Your task to perform on an android device: View the shopping cart on ebay.com. Search for razer blade on ebay.com, select the first entry, add it to the cart, then select checkout. Image 0: 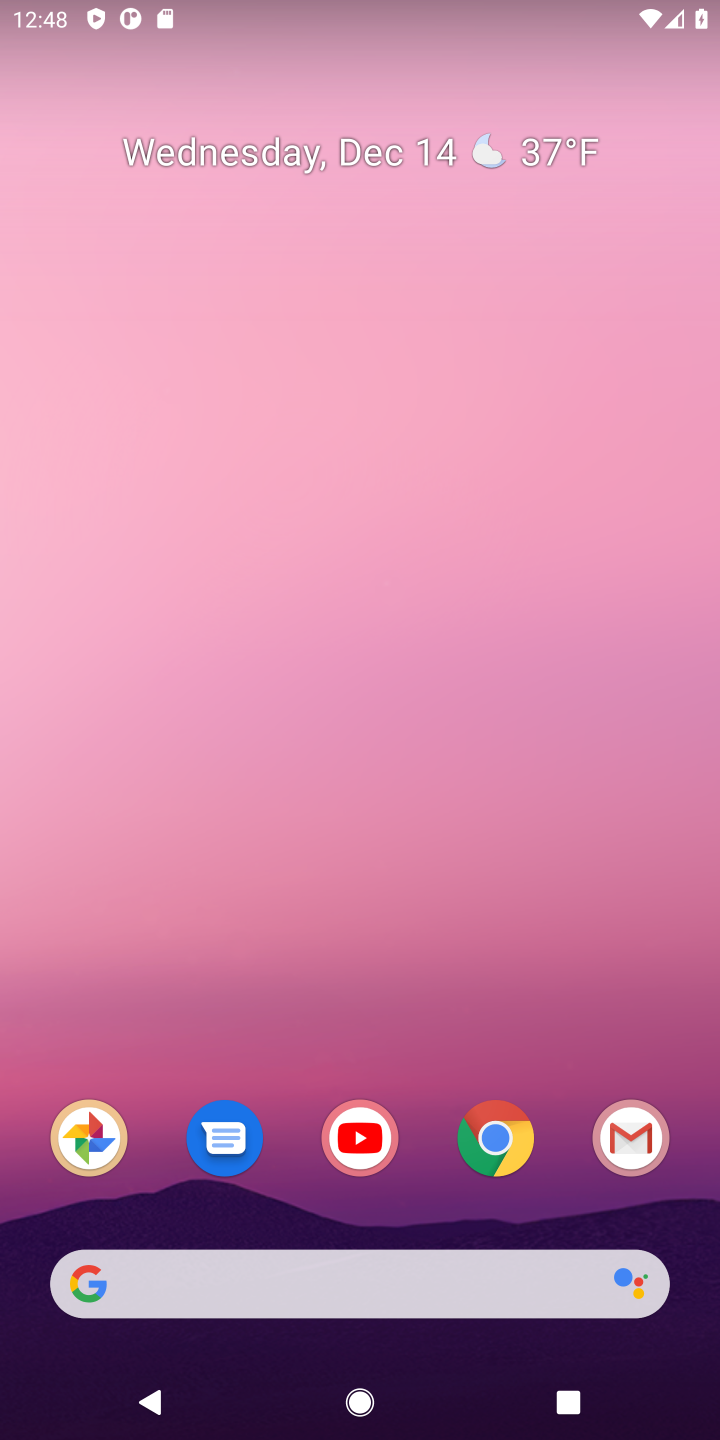
Step 0: click (478, 1117)
Your task to perform on an android device: View the shopping cart on ebay.com. Search for razer blade on ebay.com, select the first entry, add it to the cart, then select checkout. Image 1: 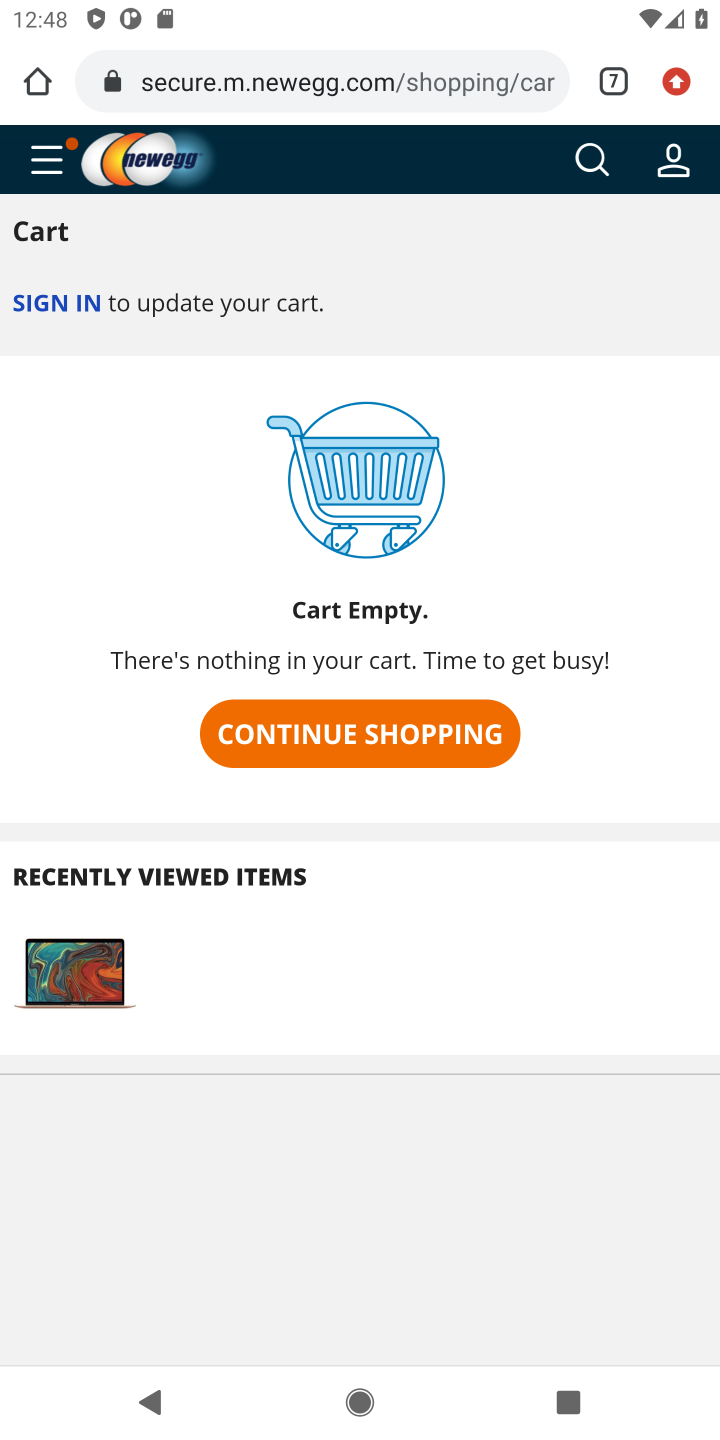
Step 1: click (618, 81)
Your task to perform on an android device: View the shopping cart on ebay.com. Search for razer blade on ebay.com, select the first entry, add it to the cart, then select checkout. Image 2: 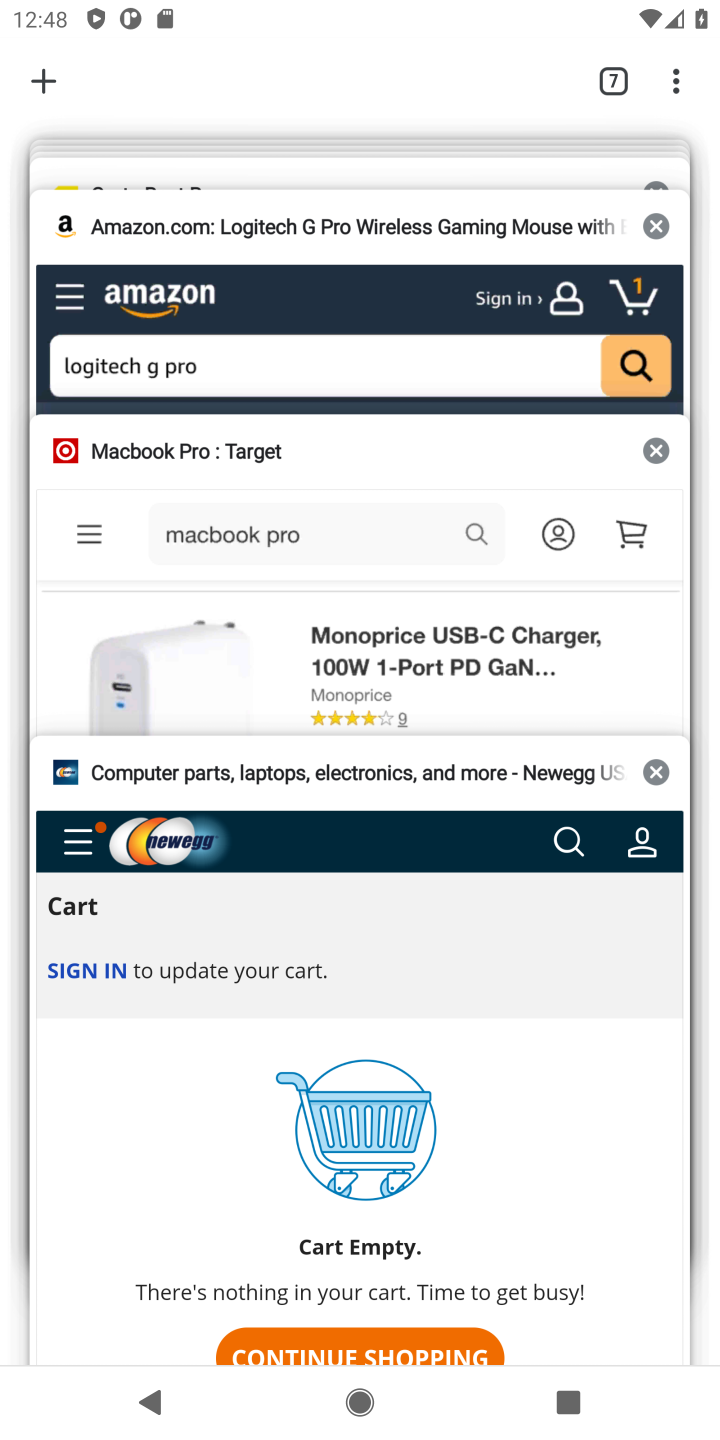
Step 2: drag from (302, 210) to (144, 738)
Your task to perform on an android device: View the shopping cart on ebay.com. Search for razer blade on ebay.com, select the first entry, add it to the cart, then select checkout. Image 3: 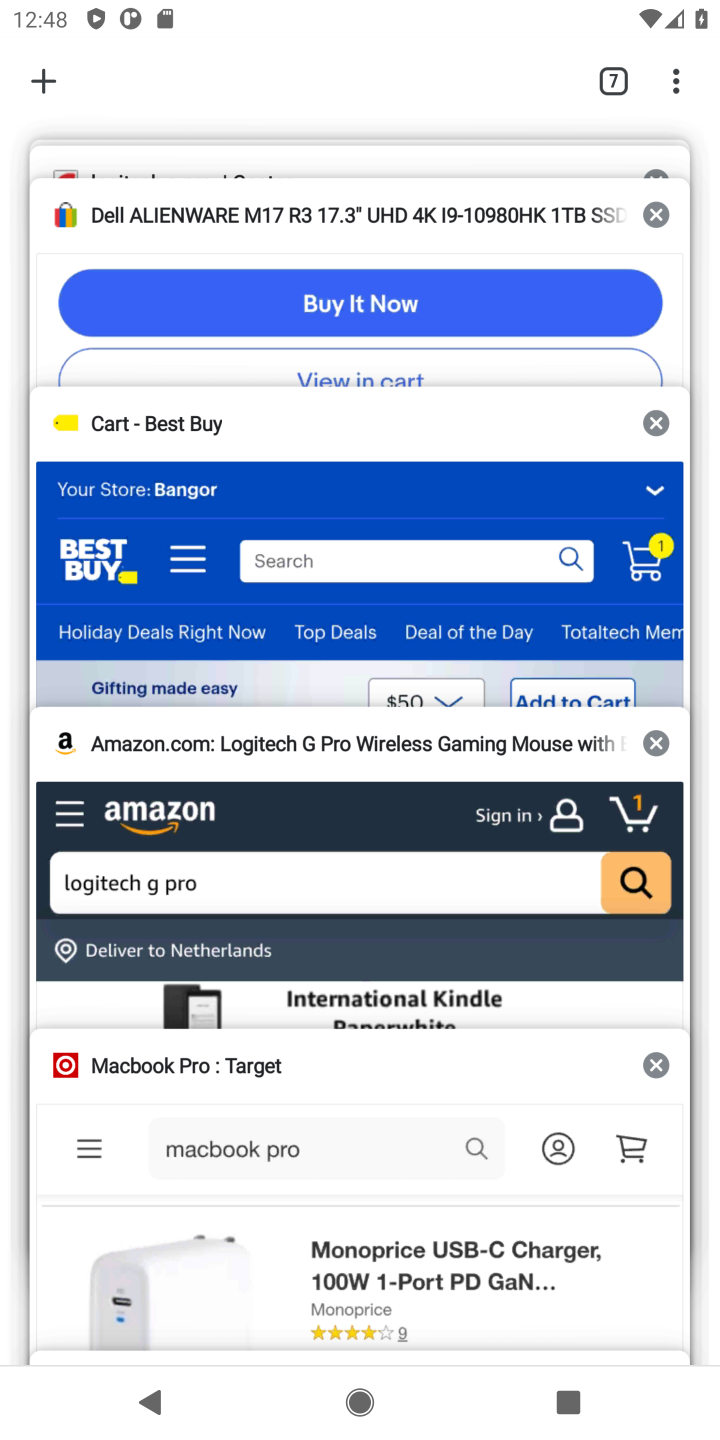
Step 3: click (277, 245)
Your task to perform on an android device: View the shopping cart on ebay.com. Search for razer blade on ebay.com, select the first entry, add it to the cart, then select checkout. Image 4: 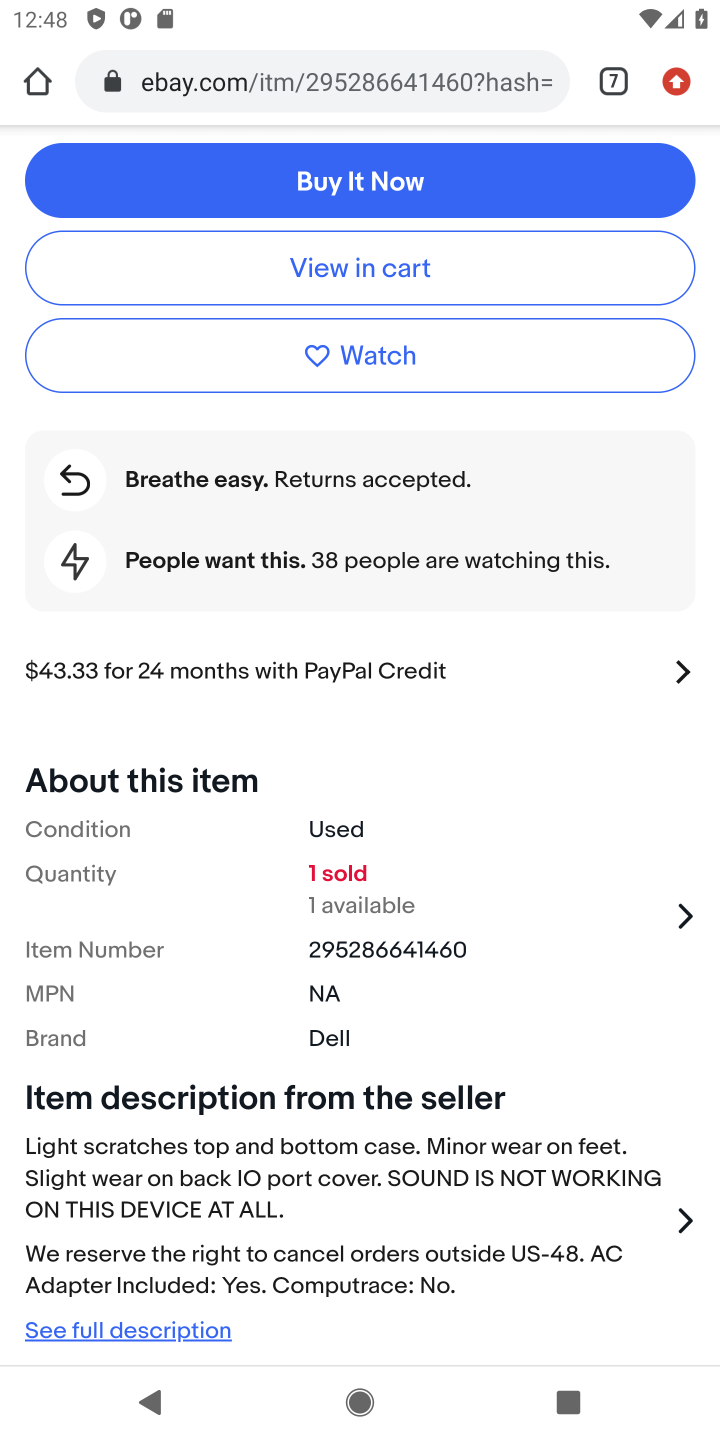
Step 4: click (420, 277)
Your task to perform on an android device: View the shopping cart on ebay.com. Search for razer blade on ebay.com, select the first entry, add it to the cart, then select checkout. Image 5: 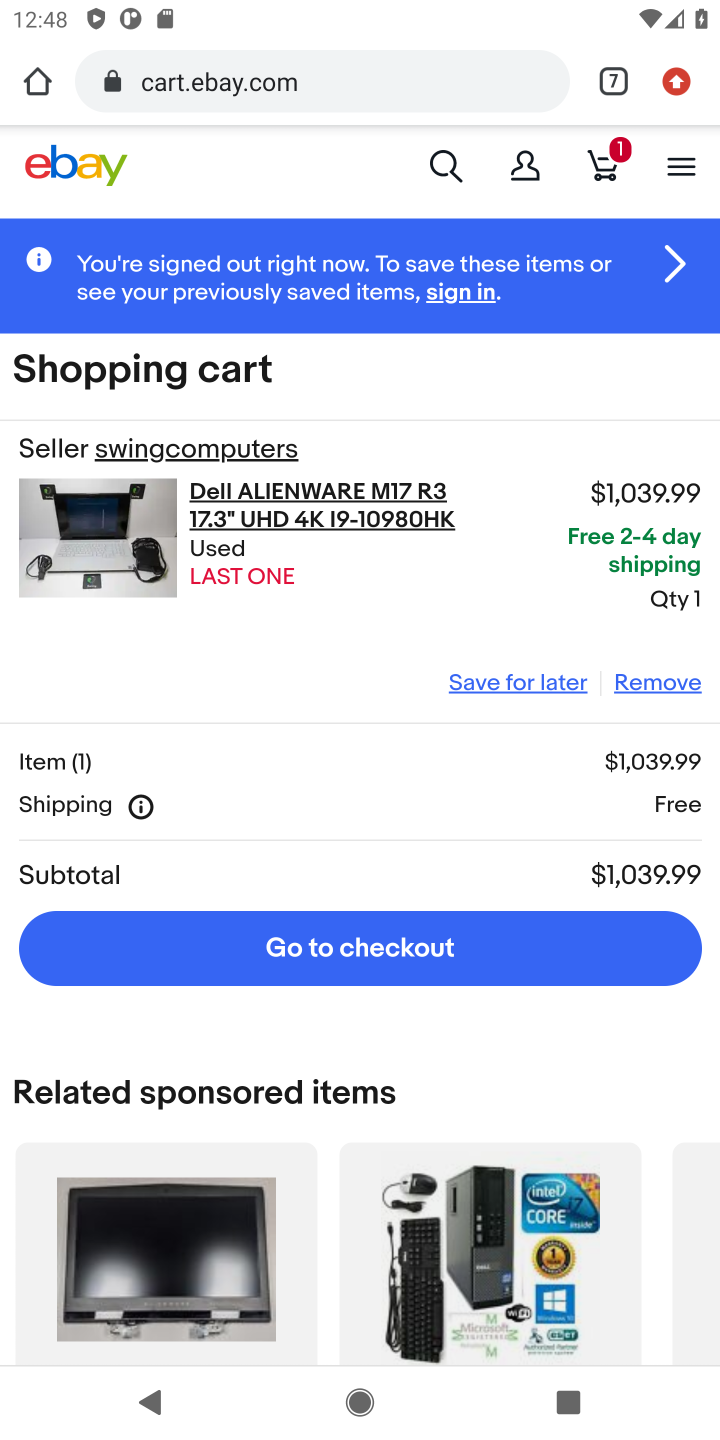
Step 5: click (444, 166)
Your task to perform on an android device: View the shopping cart on ebay.com. Search for razer blade on ebay.com, select the first entry, add it to the cart, then select checkout. Image 6: 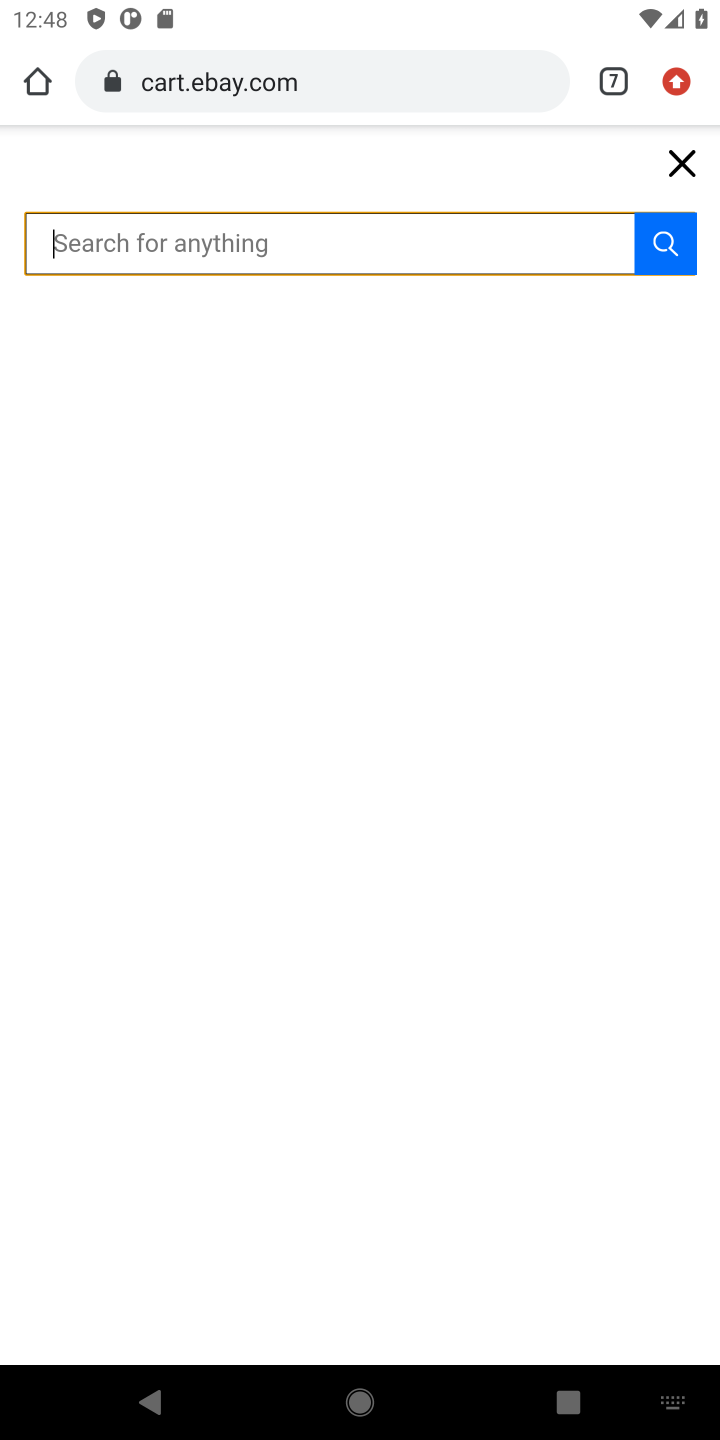
Step 6: type "razer blade"
Your task to perform on an android device: View the shopping cart on ebay.com. Search for razer blade on ebay.com, select the first entry, add it to the cart, then select checkout. Image 7: 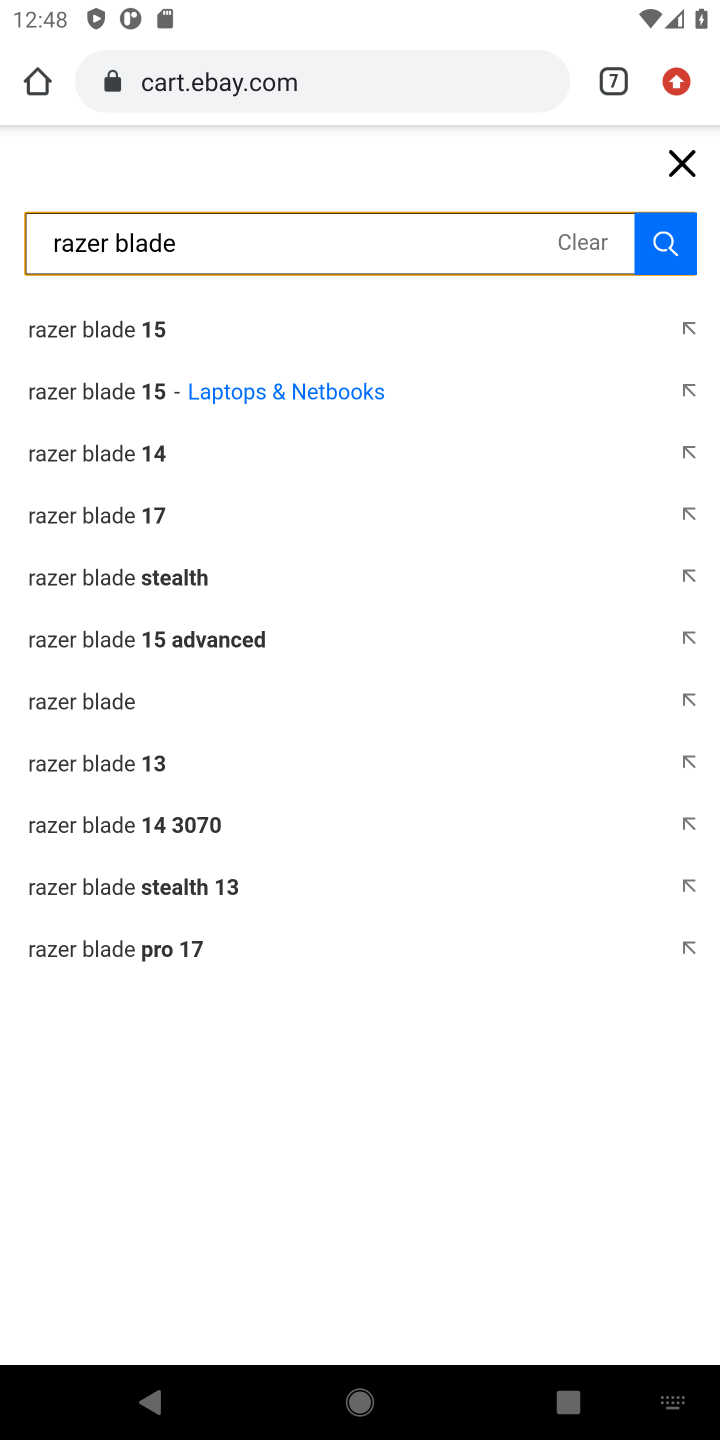
Step 7: click (79, 396)
Your task to perform on an android device: View the shopping cart on ebay.com. Search for razer blade on ebay.com, select the first entry, add it to the cart, then select checkout. Image 8: 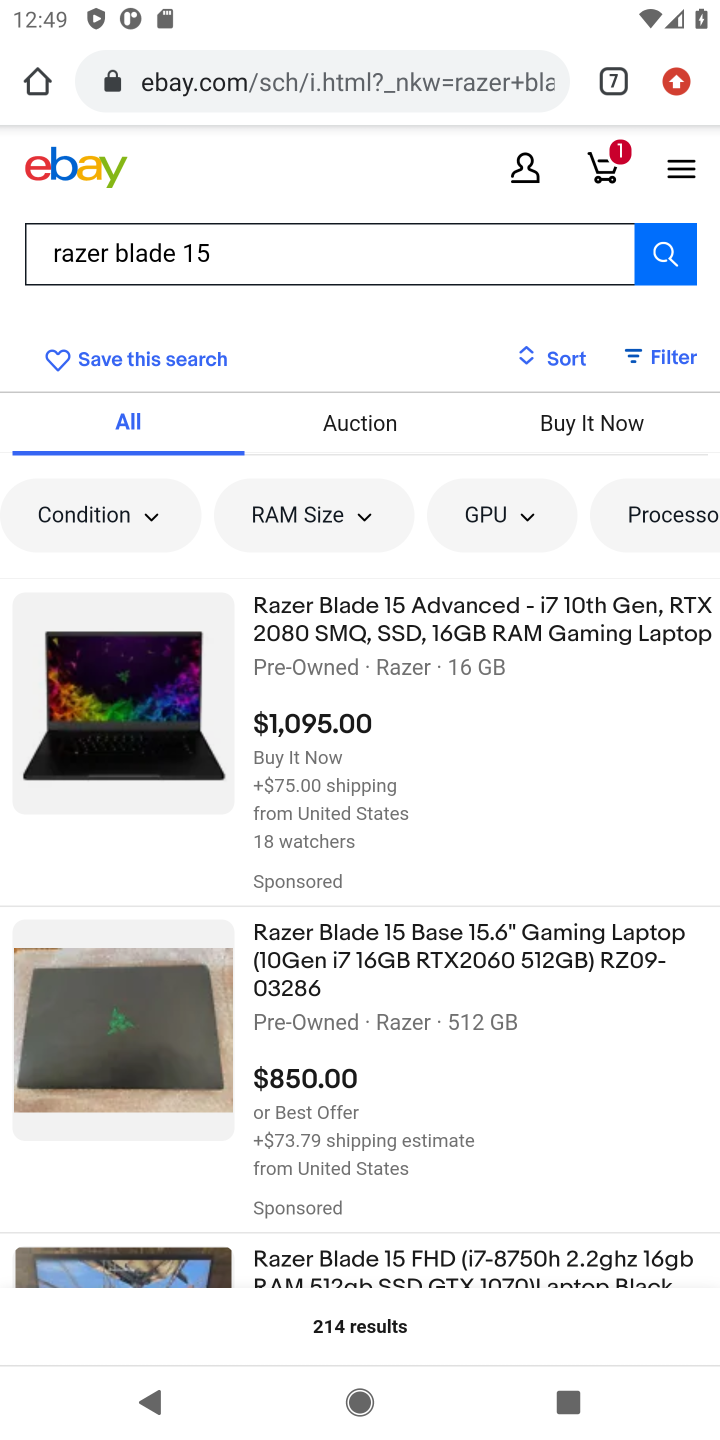
Step 8: click (408, 629)
Your task to perform on an android device: View the shopping cart on ebay.com. Search for razer blade on ebay.com, select the first entry, add it to the cart, then select checkout. Image 9: 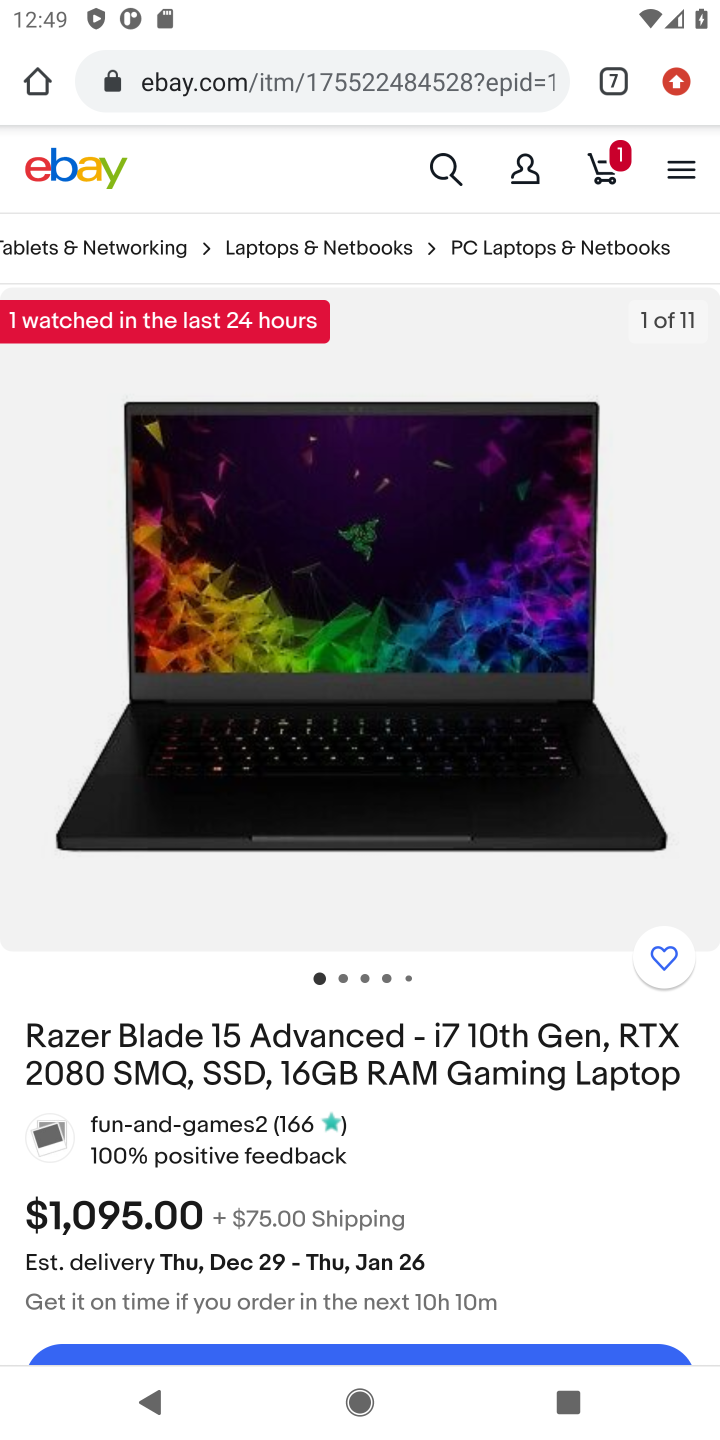
Step 9: drag from (544, 1167) to (585, 445)
Your task to perform on an android device: View the shopping cart on ebay.com. Search for razer blade on ebay.com, select the first entry, add it to the cart, then select checkout. Image 10: 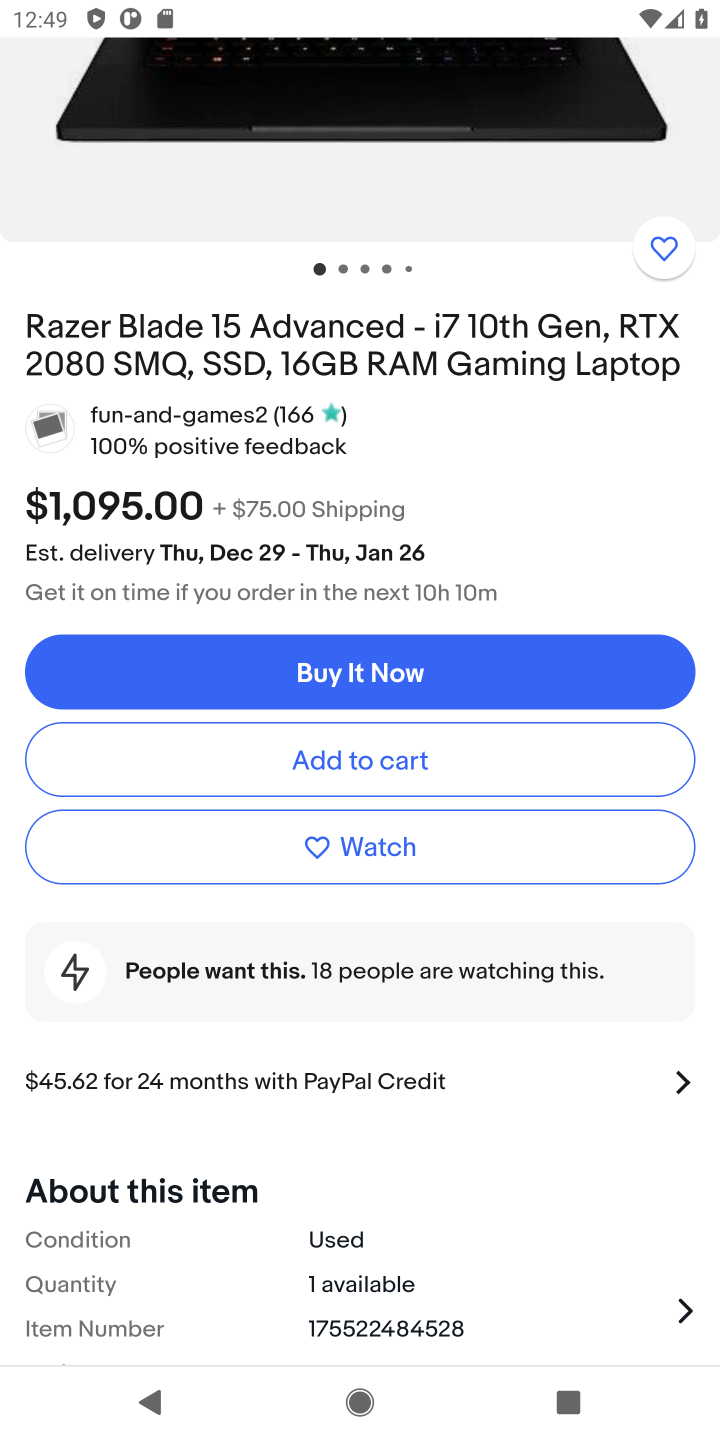
Step 10: click (510, 764)
Your task to perform on an android device: View the shopping cart on ebay.com. Search for razer blade on ebay.com, select the first entry, add it to the cart, then select checkout. Image 11: 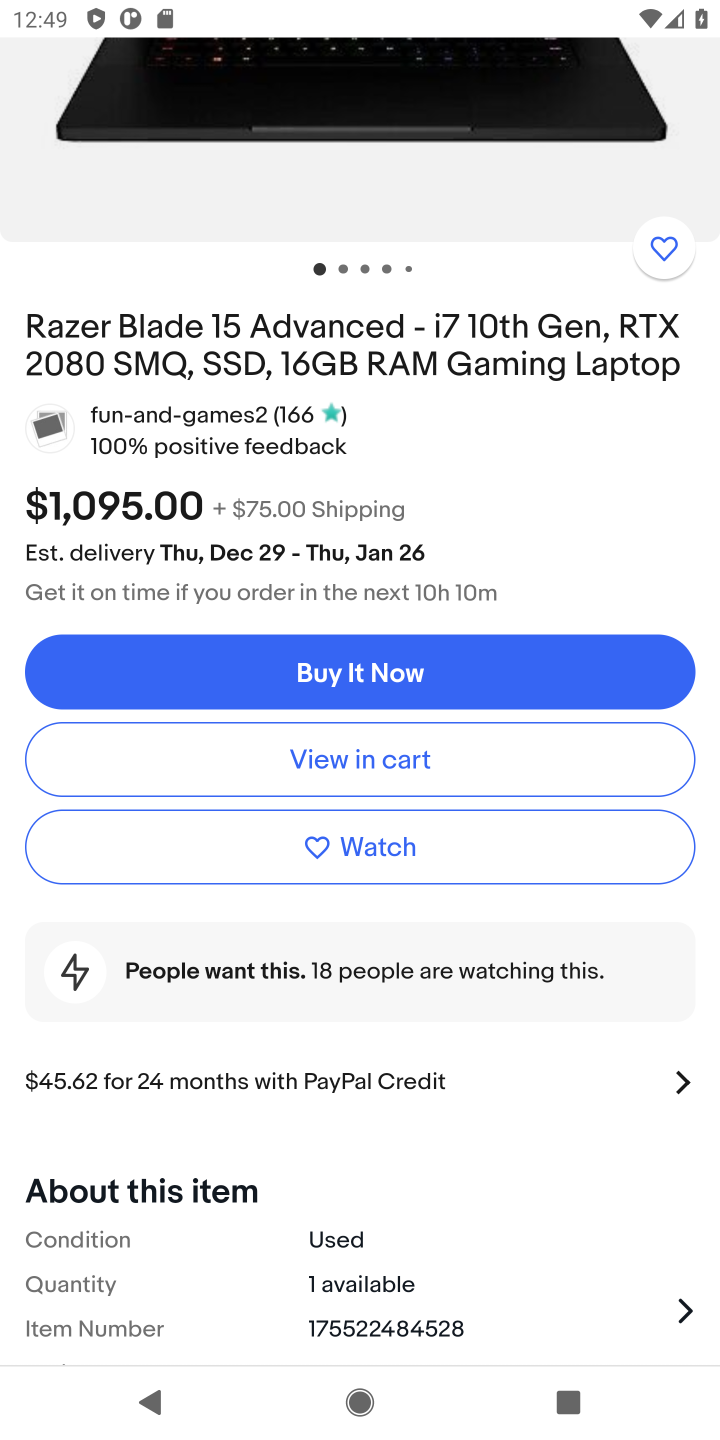
Step 11: task complete